Your task to perform on an android device: search for starred emails in the gmail app Image 0: 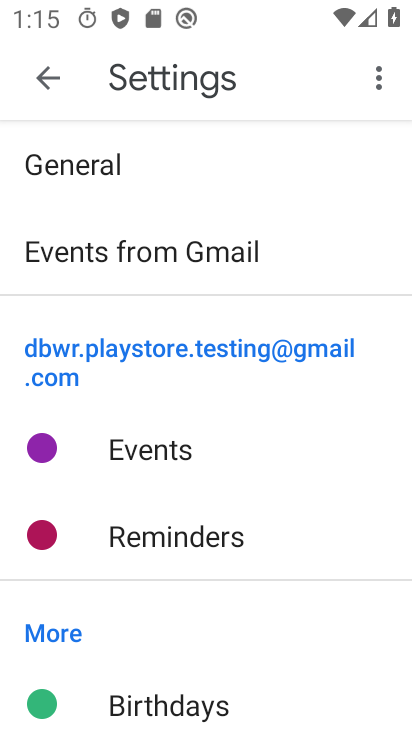
Step 0: press home button
Your task to perform on an android device: search for starred emails in the gmail app Image 1: 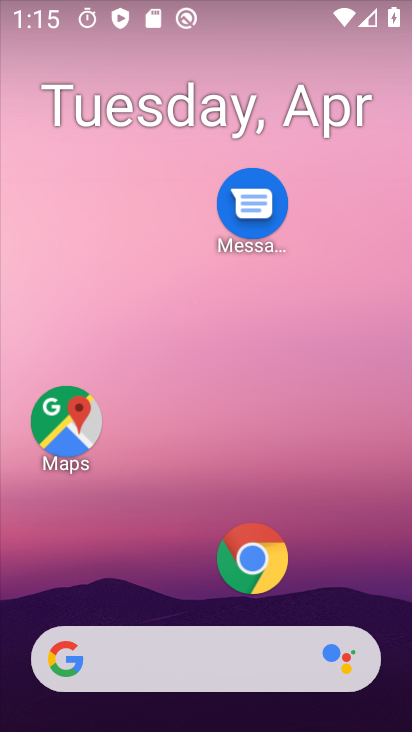
Step 1: drag from (189, 580) to (174, 270)
Your task to perform on an android device: search for starred emails in the gmail app Image 2: 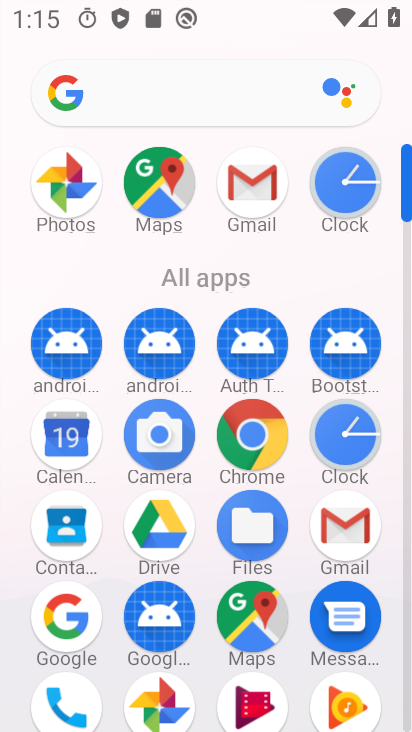
Step 2: click (341, 512)
Your task to perform on an android device: search for starred emails in the gmail app Image 3: 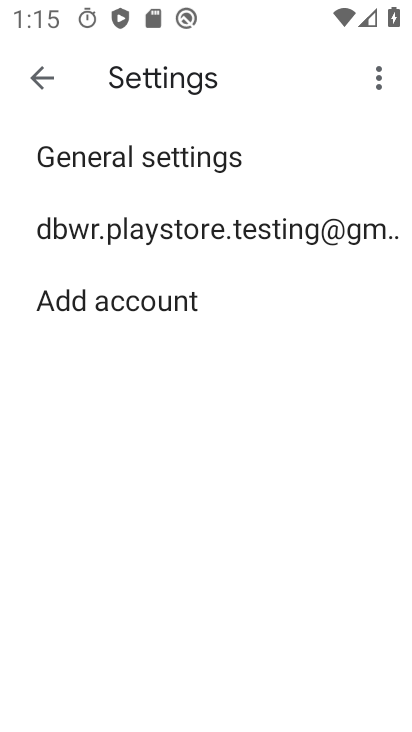
Step 3: click (170, 215)
Your task to perform on an android device: search for starred emails in the gmail app Image 4: 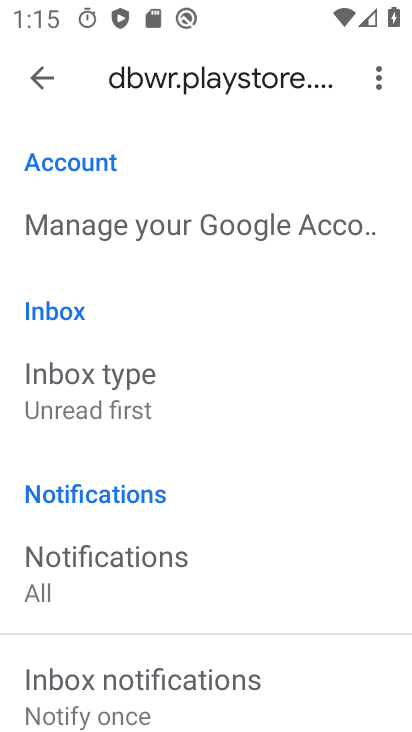
Step 4: drag from (171, 512) to (242, 186)
Your task to perform on an android device: search for starred emails in the gmail app Image 5: 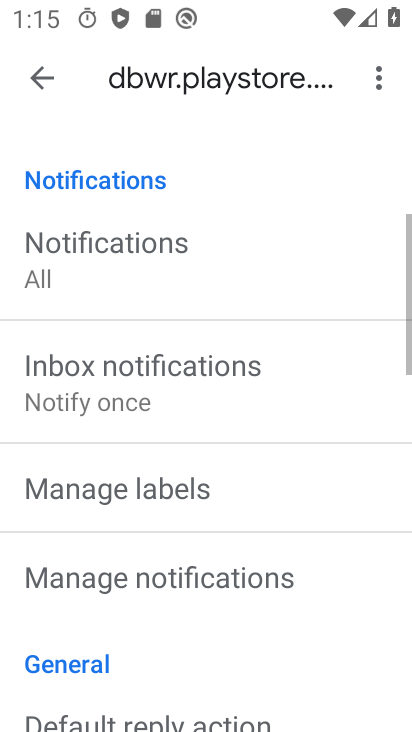
Step 5: click (33, 69)
Your task to perform on an android device: search for starred emails in the gmail app Image 6: 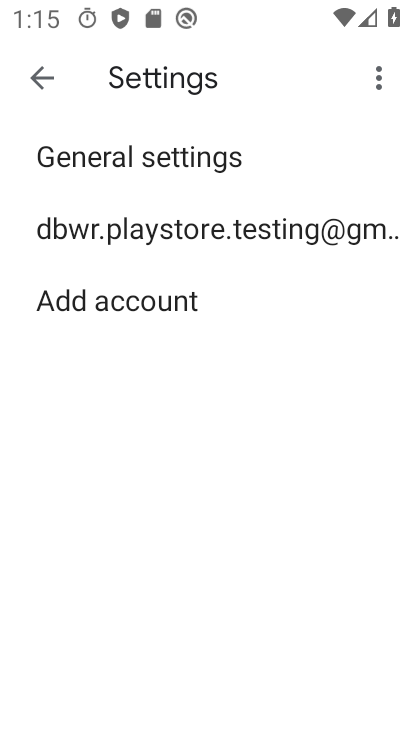
Step 6: click (36, 72)
Your task to perform on an android device: search for starred emails in the gmail app Image 7: 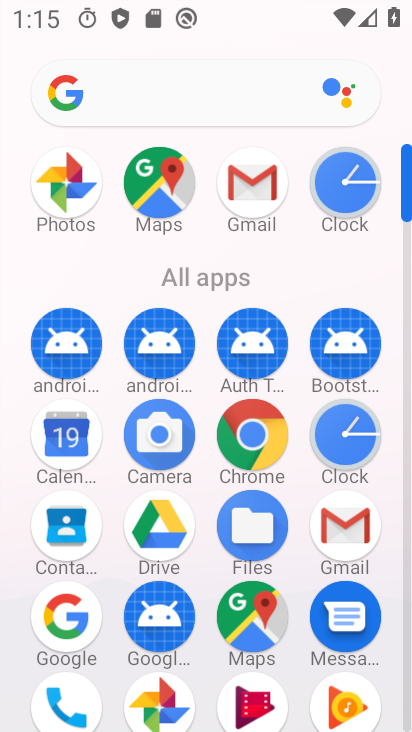
Step 7: click (348, 523)
Your task to perform on an android device: search for starred emails in the gmail app Image 8: 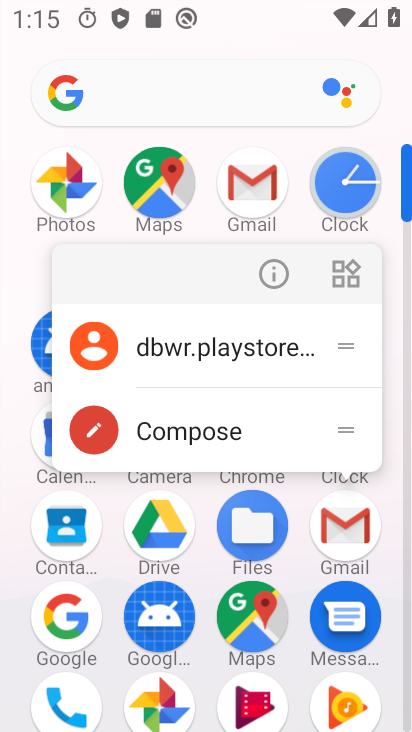
Step 8: click (278, 280)
Your task to perform on an android device: search for starred emails in the gmail app Image 9: 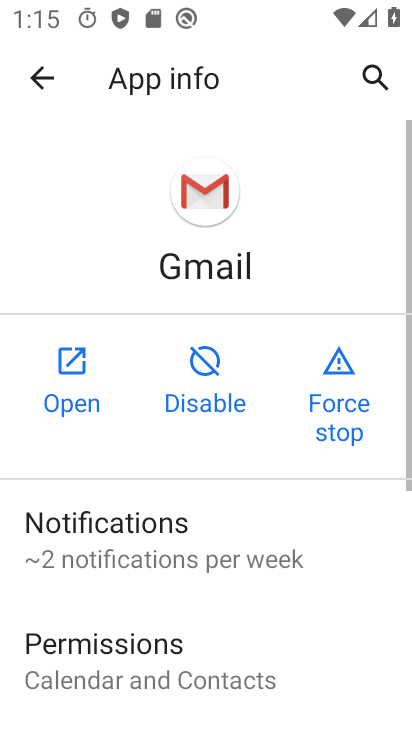
Step 9: click (71, 362)
Your task to perform on an android device: search for starred emails in the gmail app Image 10: 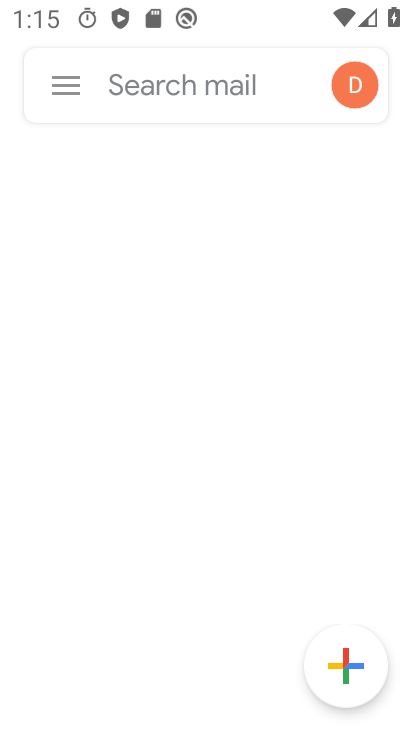
Step 10: click (62, 101)
Your task to perform on an android device: search for starred emails in the gmail app Image 11: 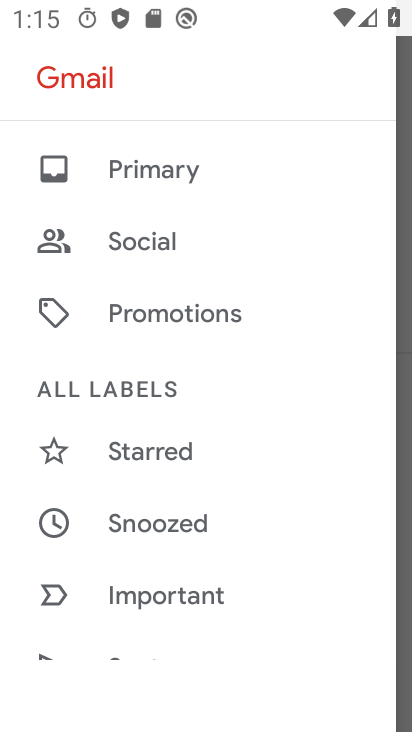
Step 11: click (175, 521)
Your task to perform on an android device: search for starred emails in the gmail app Image 12: 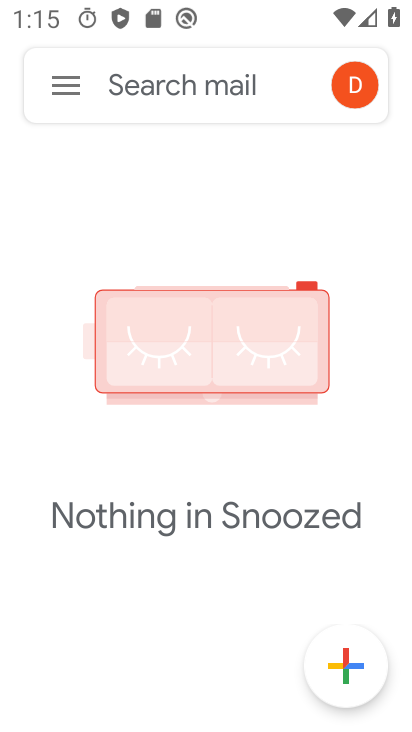
Step 12: click (55, 95)
Your task to perform on an android device: search for starred emails in the gmail app Image 13: 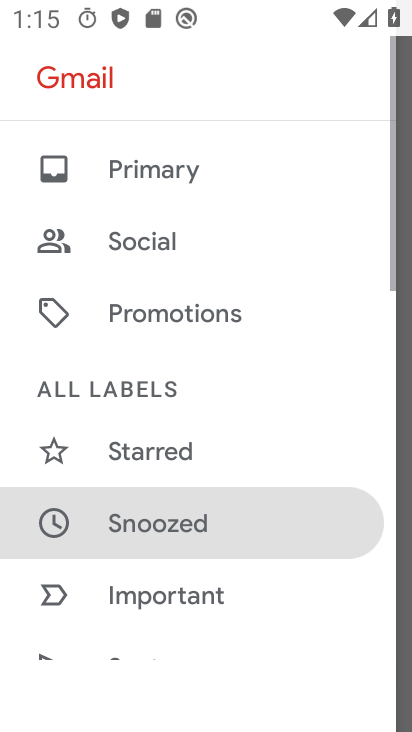
Step 13: drag from (124, 544) to (203, 165)
Your task to perform on an android device: search for starred emails in the gmail app Image 14: 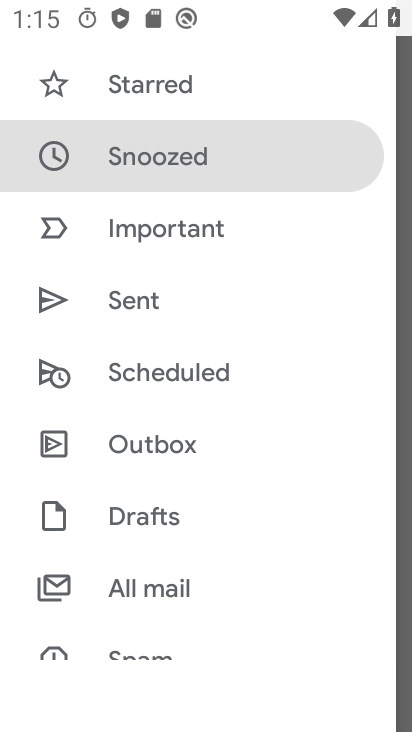
Step 14: click (183, 88)
Your task to perform on an android device: search for starred emails in the gmail app Image 15: 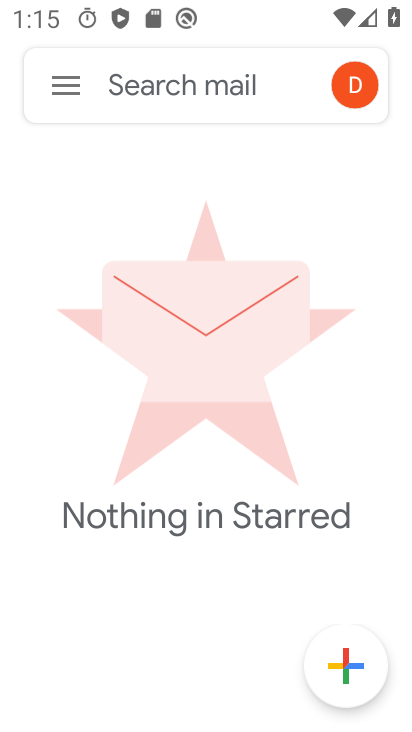
Step 15: task complete